Your task to perform on an android device: toggle notifications settings in the gmail app Image 0: 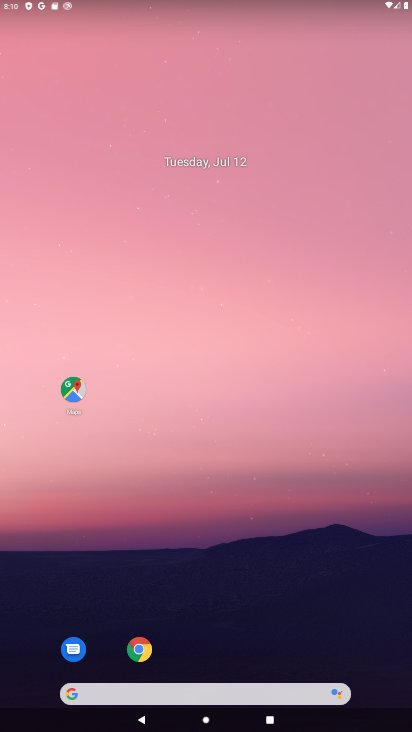
Step 0: drag from (276, 645) to (259, 251)
Your task to perform on an android device: toggle notifications settings in the gmail app Image 1: 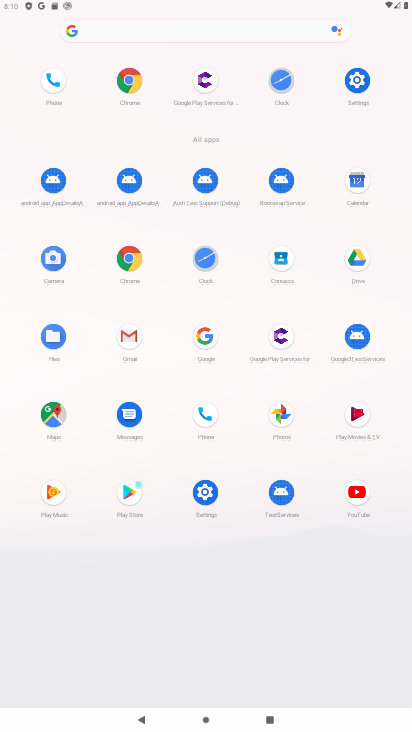
Step 1: click (359, 87)
Your task to perform on an android device: toggle notifications settings in the gmail app Image 2: 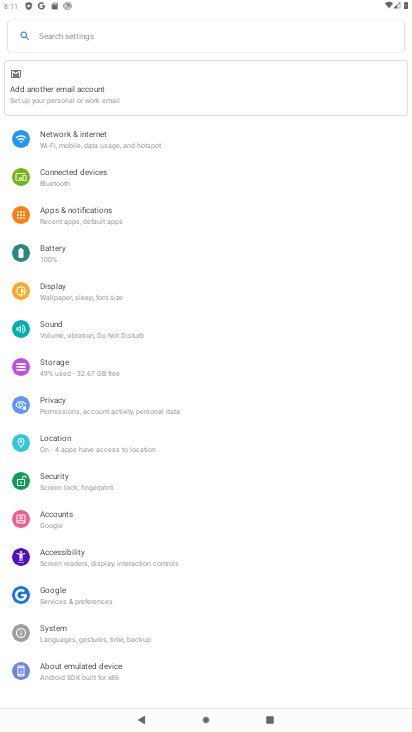
Step 2: press home button
Your task to perform on an android device: toggle notifications settings in the gmail app Image 3: 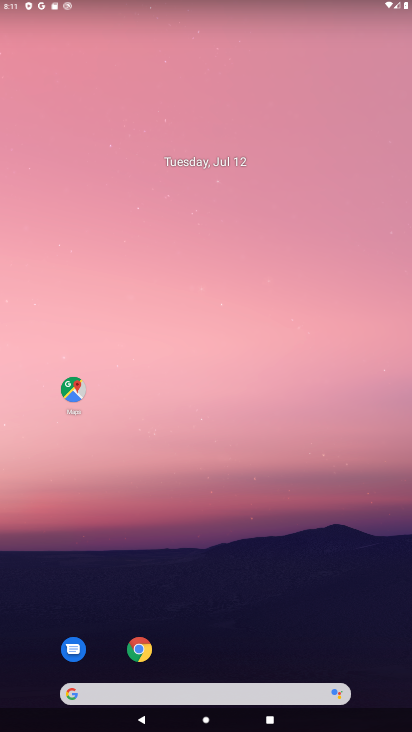
Step 3: drag from (263, 619) to (274, 180)
Your task to perform on an android device: toggle notifications settings in the gmail app Image 4: 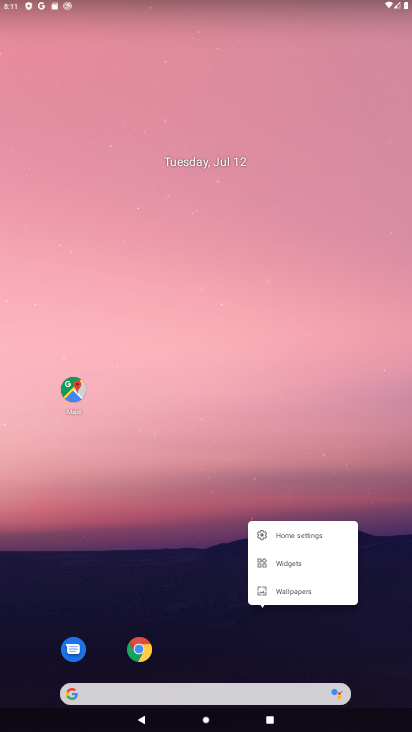
Step 4: click (192, 413)
Your task to perform on an android device: toggle notifications settings in the gmail app Image 5: 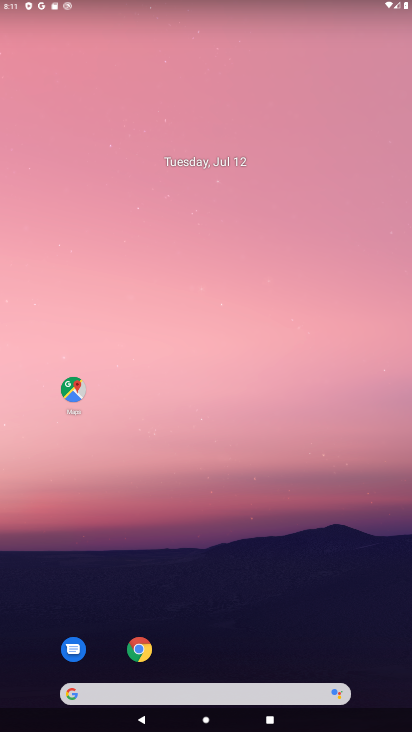
Step 5: drag from (217, 648) to (197, 17)
Your task to perform on an android device: toggle notifications settings in the gmail app Image 6: 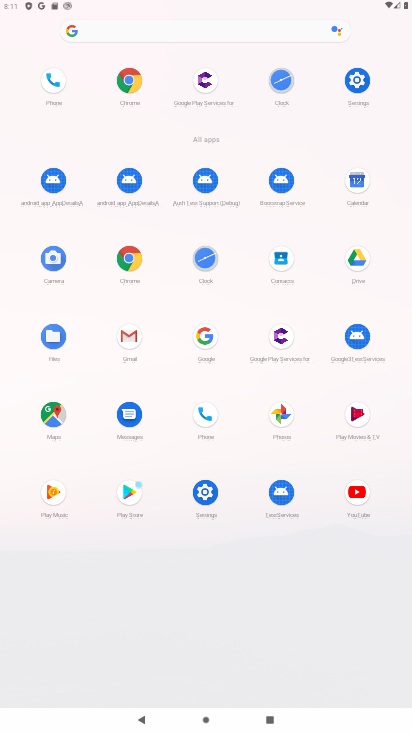
Step 6: click (132, 346)
Your task to perform on an android device: toggle notifications settings in the gmail app Image 7: 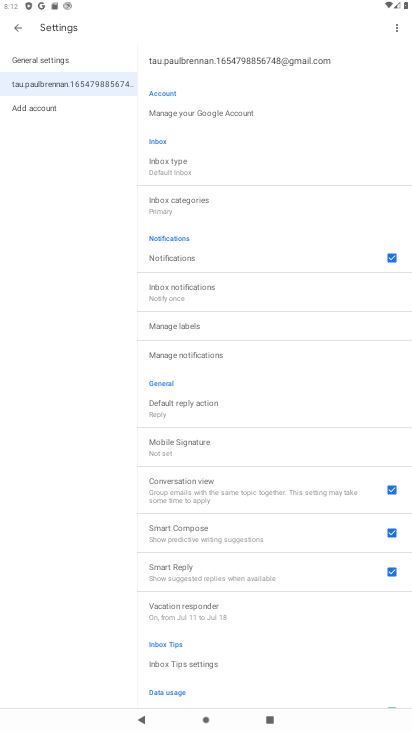
Step 7: click (37, 57)
Your task to perform on an android device: toggle notifications settings in the gmail app Image 8: 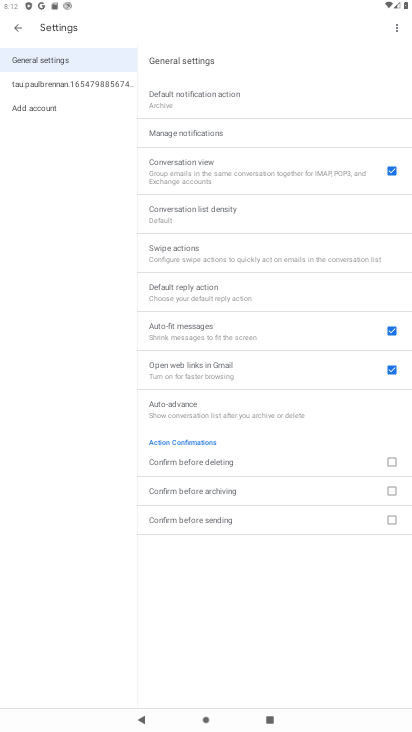
Step 8: task complete